Your task to perform on an android device: set the timer Image 0: 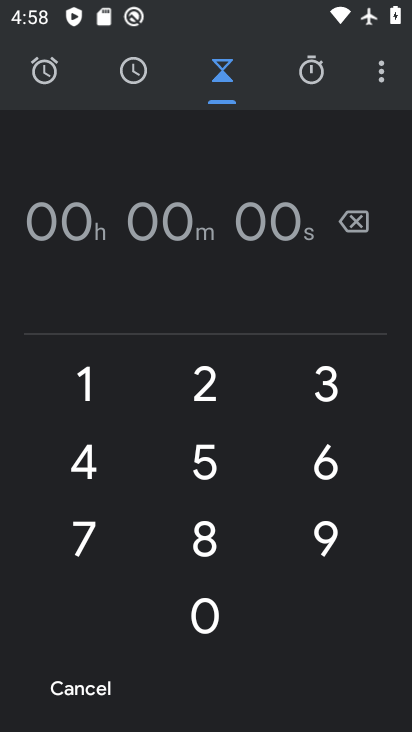
Step 0: click (200, 460)
Your task to perform on an android device: set the timer Image 1: 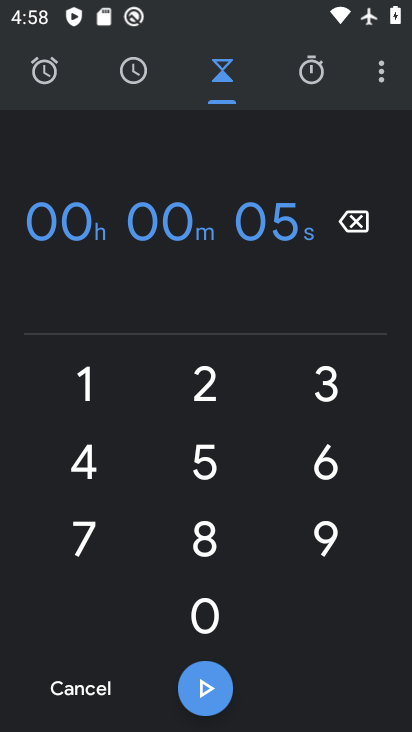
Step 1: click (211, 526)
Your task to perform on an android device: set the timer Image 2: 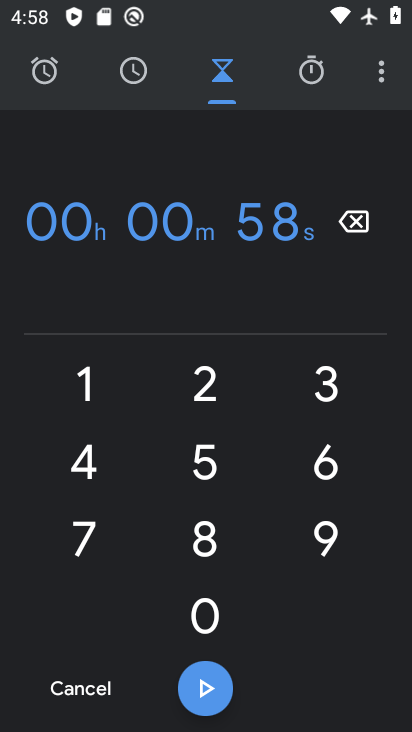
Step 2: click (204, 557)
Your task to perform on an android device: set the timer Image 3: 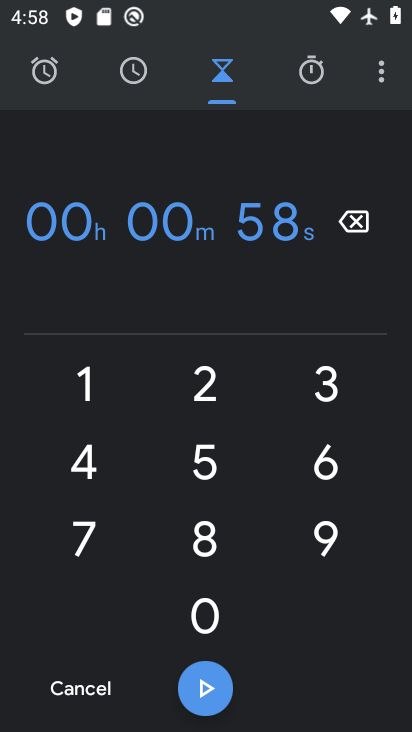
Step 3: click (204, 557)
Your task to perform on an android device: set the timer Image 4: 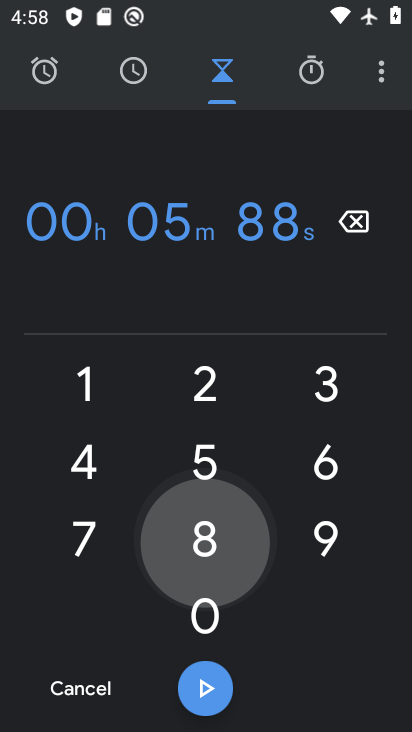
Step 4: click (204, 557)
Your task to perform on an android device: set the timer Image 5: 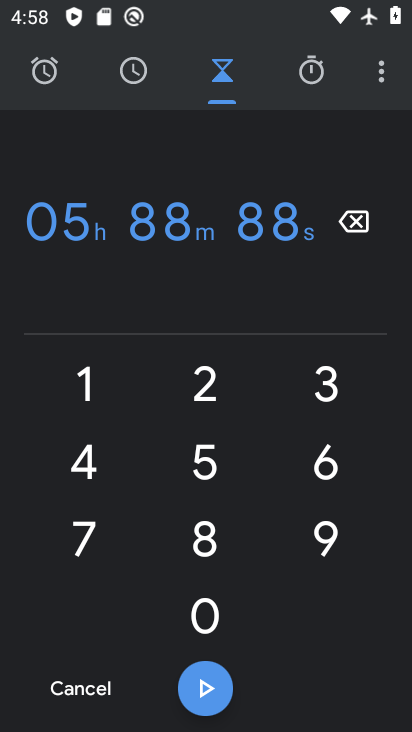
Step 5: click (203, 473)
Your task to perform on an android device: set the timer Image 6: 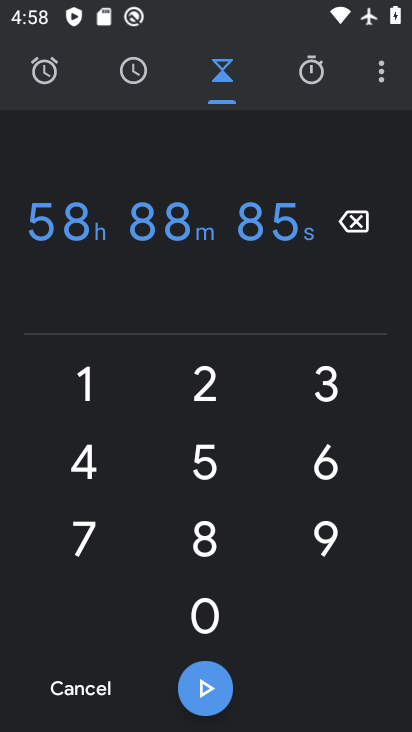
Step 6: click (204, 698)
Your task to perform on an android device: set the timer Image 7: 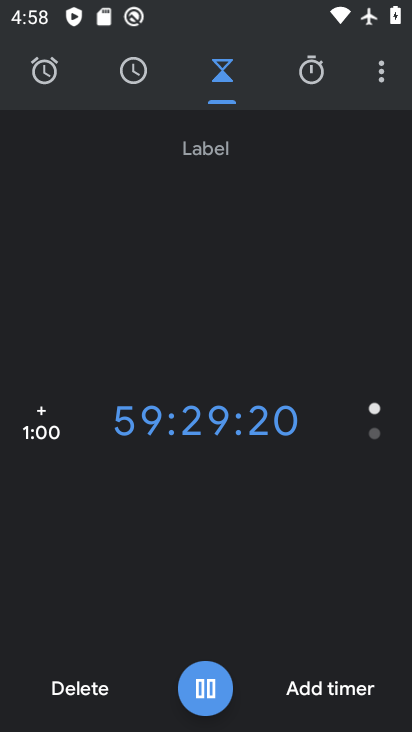
Step 7: click (199, 685)
Your task to perform on an android device: set the timer Image 8: 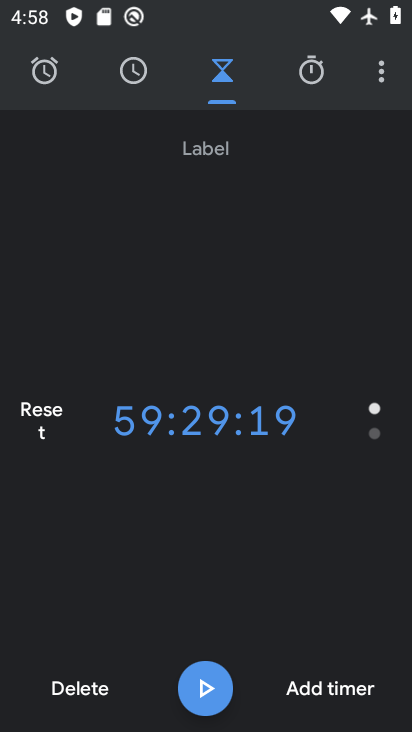
Step 8: click (314, 688)
Your task to perform on an android device: set the timer Image 9: 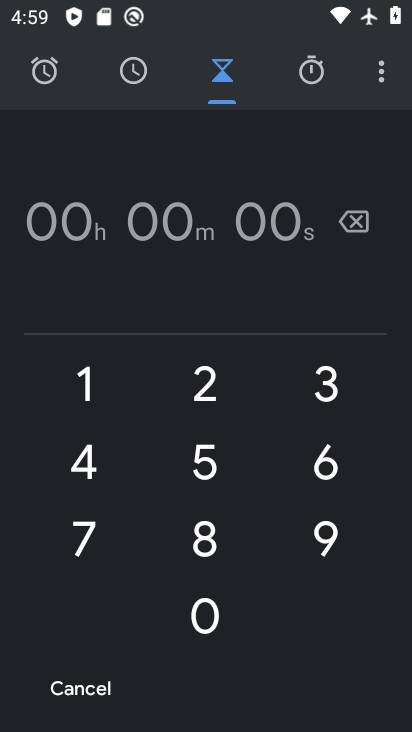
Step 9: click (209, 534)
Your task to perform on an android device: set the timer Image 10: 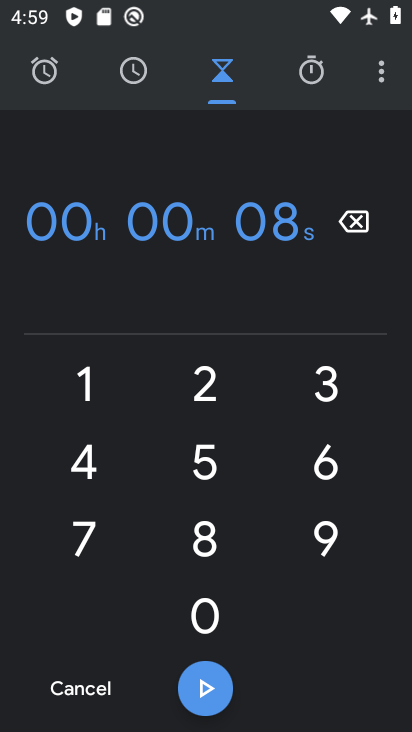
Step 10: click (194, 694)
Your task to perform on an android device: set the timer Image 11: 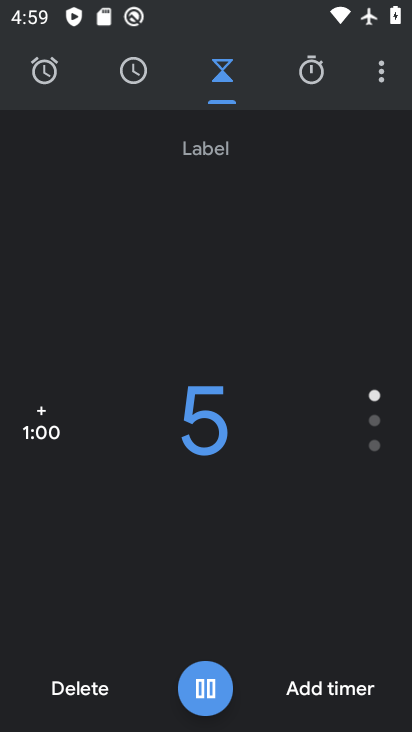
Step 11: click (207, 688)
Your task to perform on an android device: set the timer Image 12: 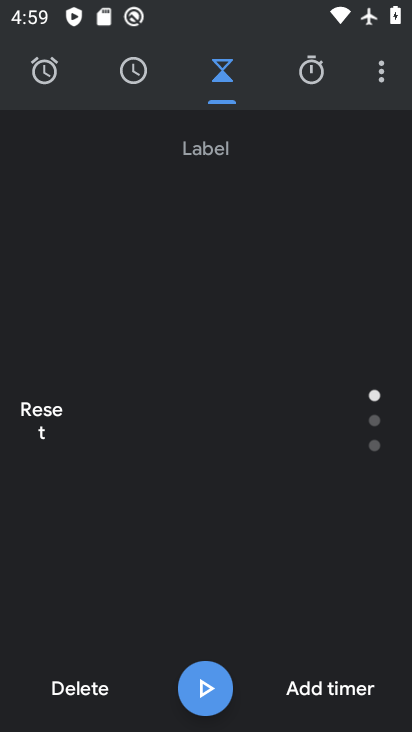
Step 12: click (346, 683)
Your task to perform on an android device: set the timer Image 13: 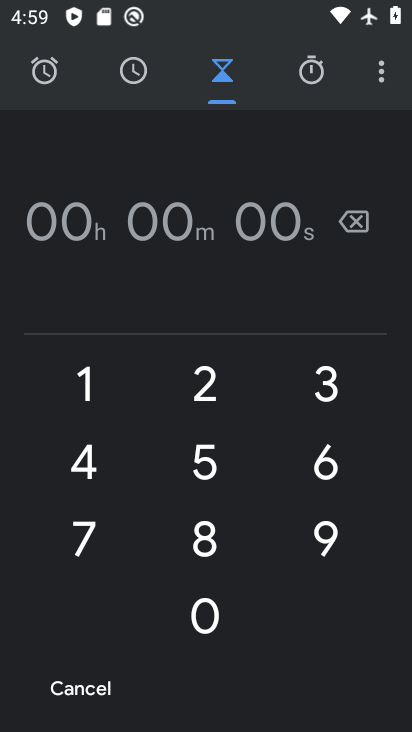
Step 13: task complete